Your task to perform on an android device: turn on sleep mode Image 0: 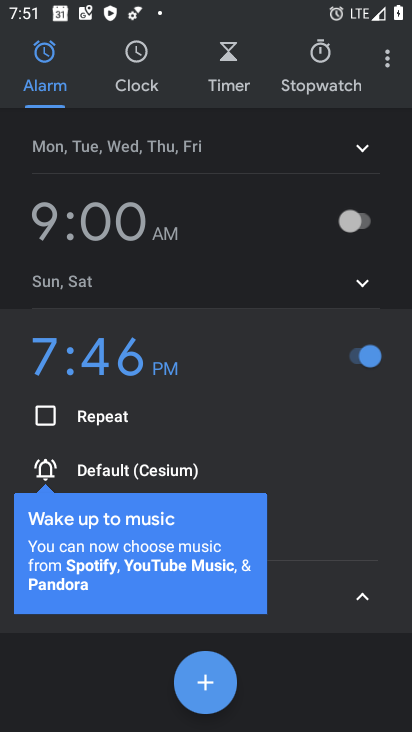
Step 0: press home button
Your task to perform on an android device: turn on sleep mode Image 1: 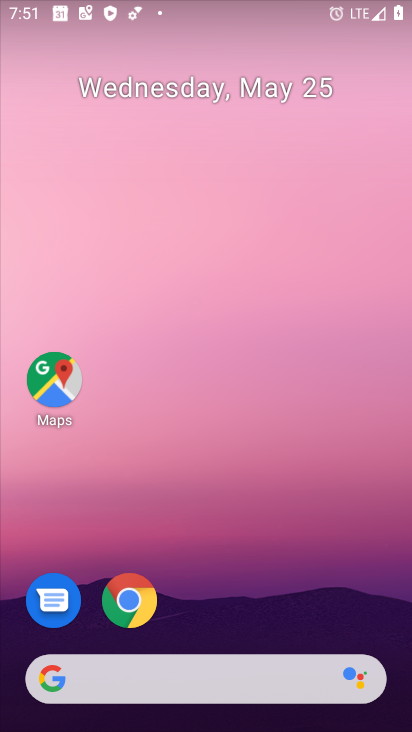
Step 1: drag from (334, 448) to (257, 75)
Your task to perform on an android device: turn on sleep mode Image 2: 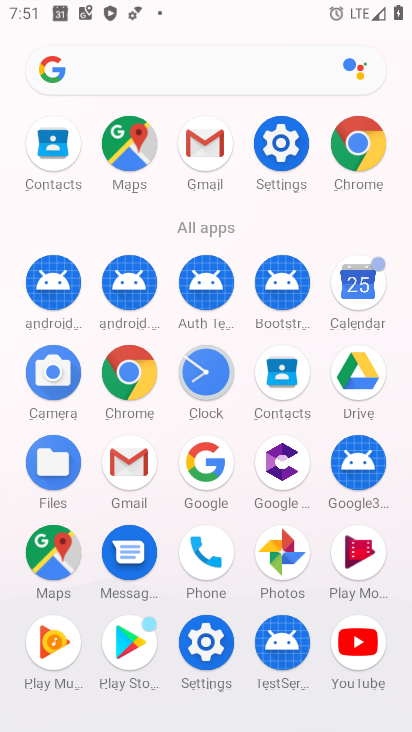
Step 2: click (286, 135)
Your task to perform on an android device: turn on sleep mode Image 3: 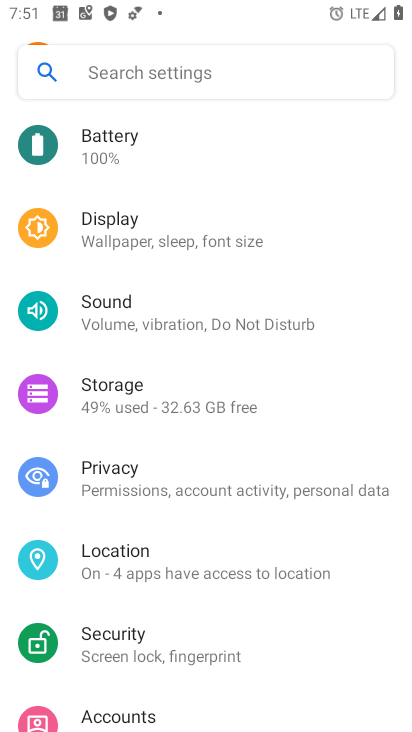
Step 3: click (201, 245)
Your task to perform on an android device: turn on sleep mode Image 4: 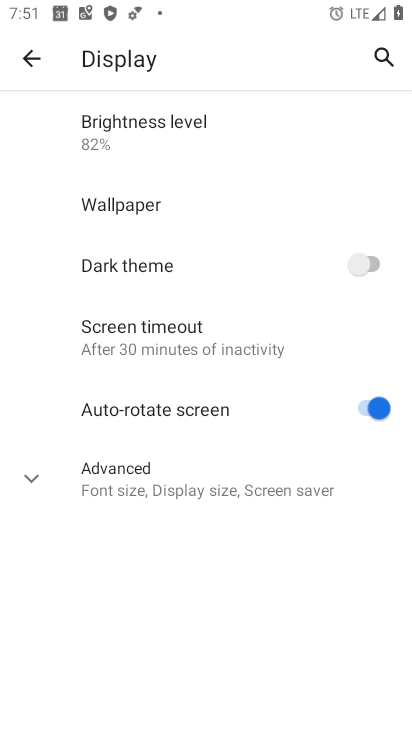
Step 4: click (289, 334)
Your task to perform on an android device: turn on sleep mode Image 5: 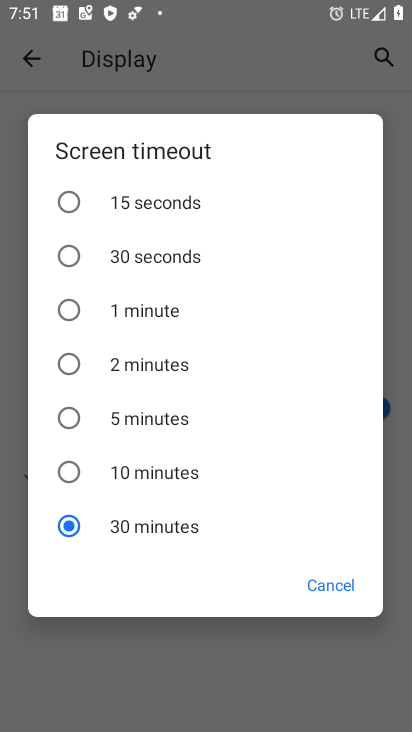
Step 5: task complete